Your task to perform on an android device: turn off priority inbox in the gmail app Image 0: 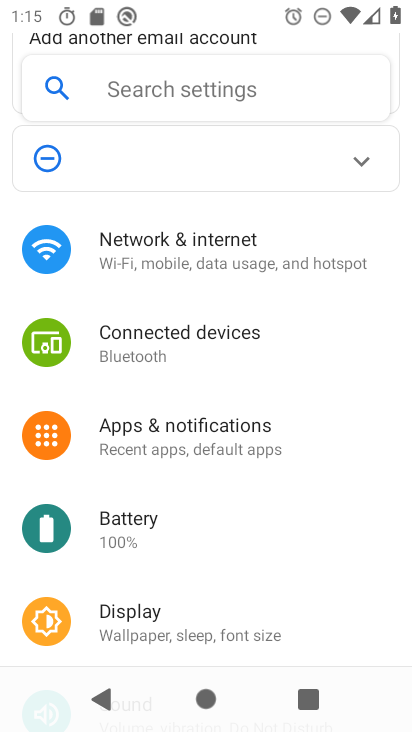
Step 0: press home button
Your task to perform on an android device: turn off priority inbox in the gmail app Image 1: 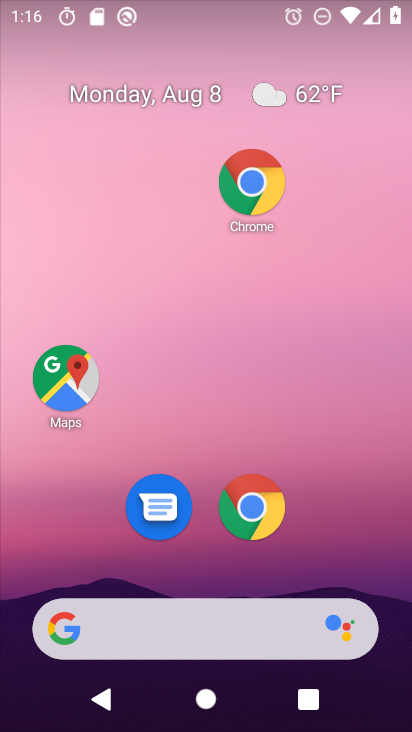
Step 1: drag from (329, 508) to (319, 63)
Your task to perform on an android device: turn off priority inbox in the gmail app Image 2: 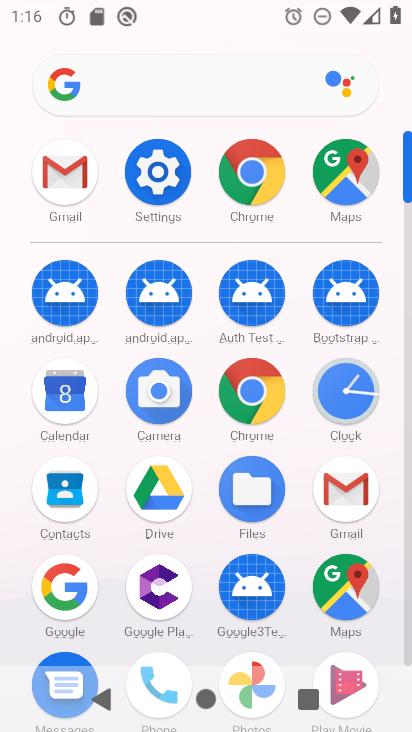
Step 2: click (60, 165)
Your task to perform on an android device: turn off priority inbox in the gmail app Image 3: 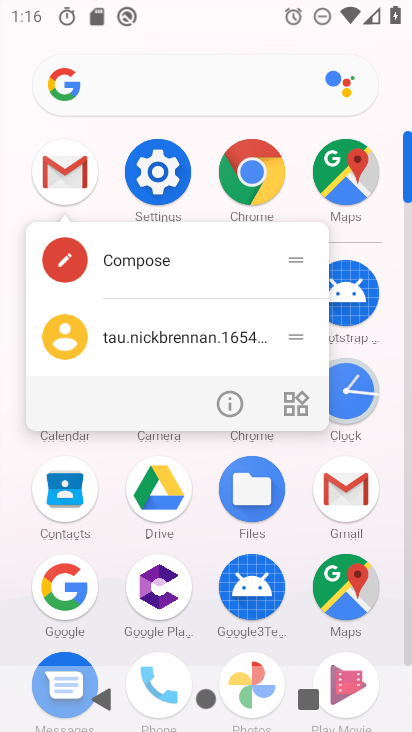
Step 3: click (61, 174)
Your task to perform on an android device: turn off priority inbox in the gmail app Image 4: 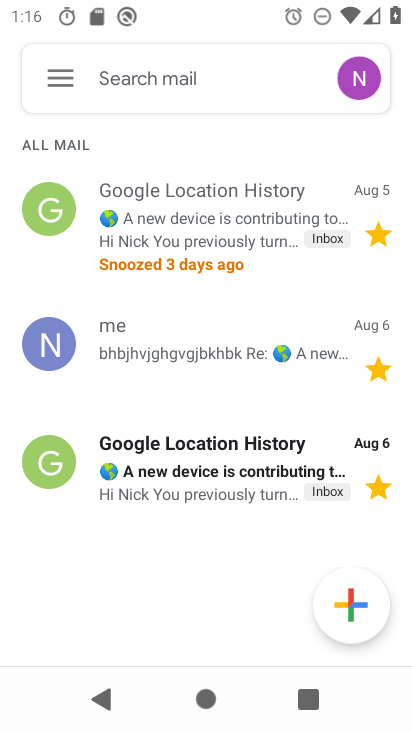
Step 4: click (39, 71)
Your task to perform on an android device: turn off priority inbox in the gmail app Image 5: 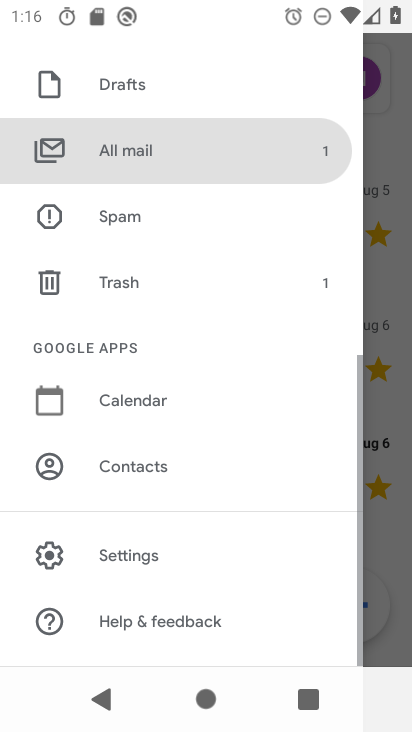
Step 5: click (128, 555)
Your task to perform on an android device: turn off priority inbox in the gmail app Image 6: 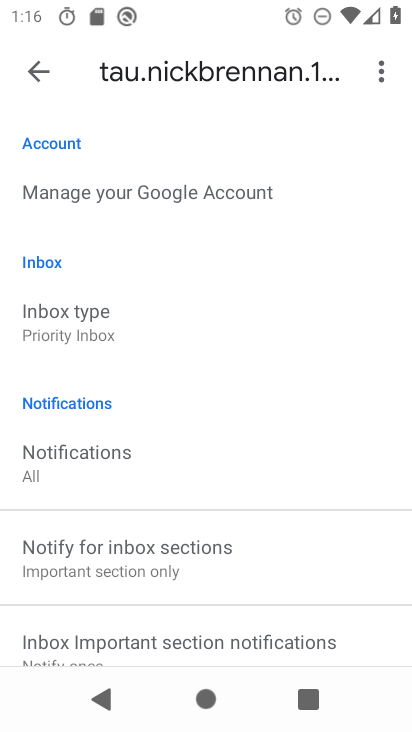
Step 6: click (76, 318)
Your task to perform on an android device: turn off priority inbox in the gmail app Image 7: 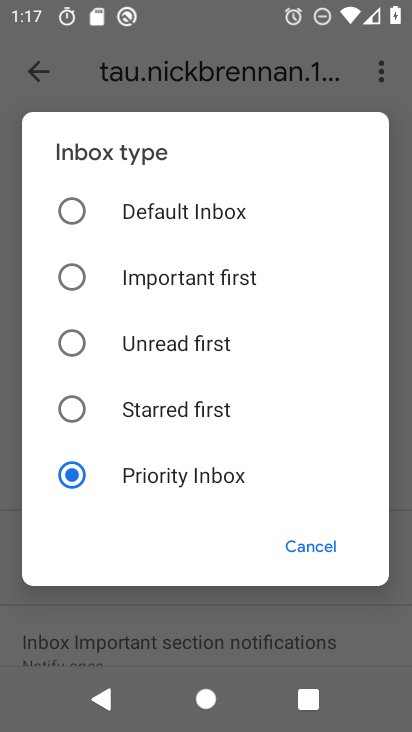
Step 7: task complete